Your task to perform on an android device: toggle pop-ups in chrome Image 0: 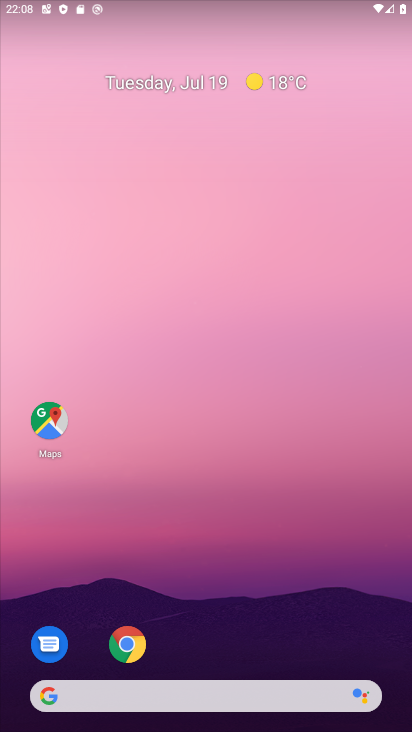
Step 0: drag from (243, 702) to (184, 206)
Your task to perform on an android device: toggle pop-ups in chrome Image 1: 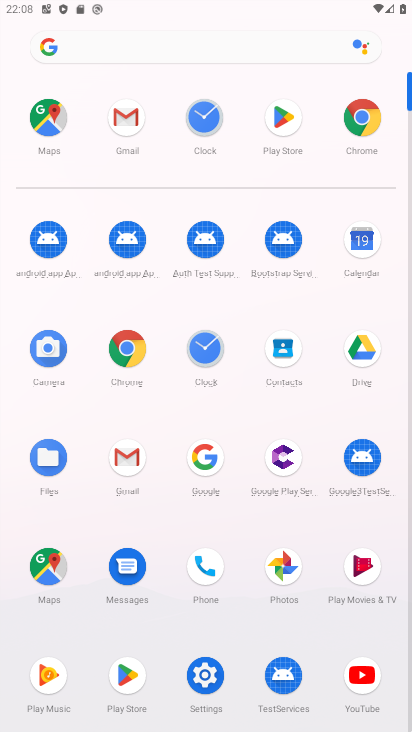
Step 1: click (131, 347)
Your task to perform on an android device: toggle pop-ups in chrome Image 2: 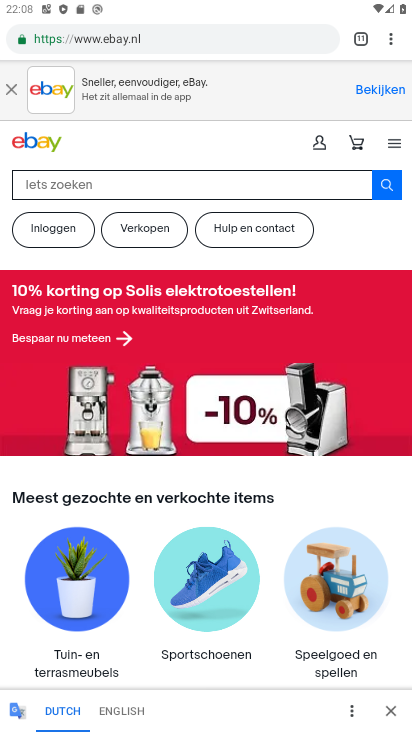
Step 2: click (389, 42)
Your task to perform on an android device: toggle pop-ups in chrome Image 3: 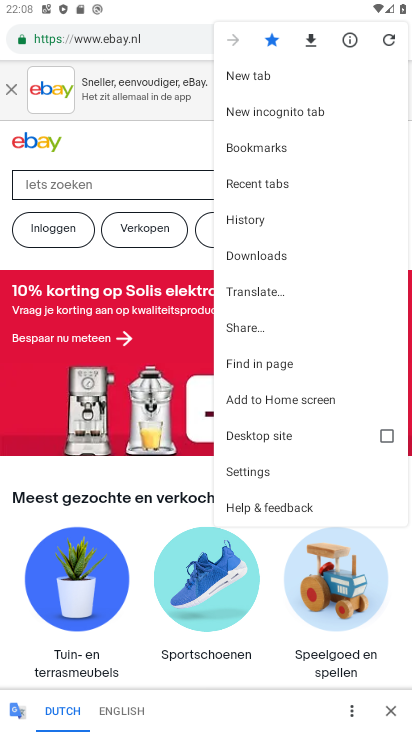
Step 3: click (241, 472)
Your task to perform on an android device: toggle pop-ups in chrome Image 4: 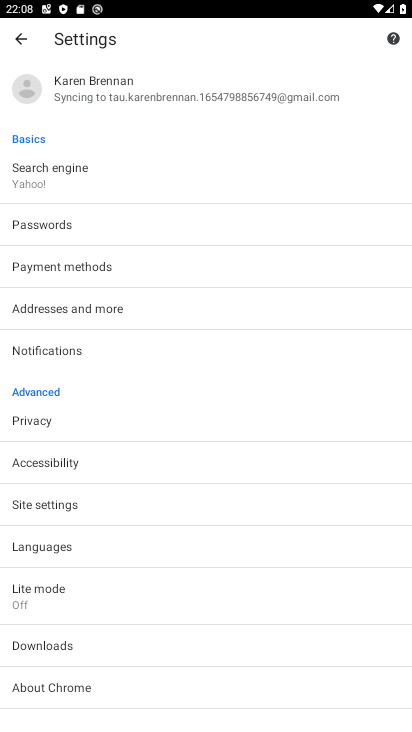
Step 4: click (52, 505)
Your task to perform on an android device: toggle pop-ups in chrome Image 5: 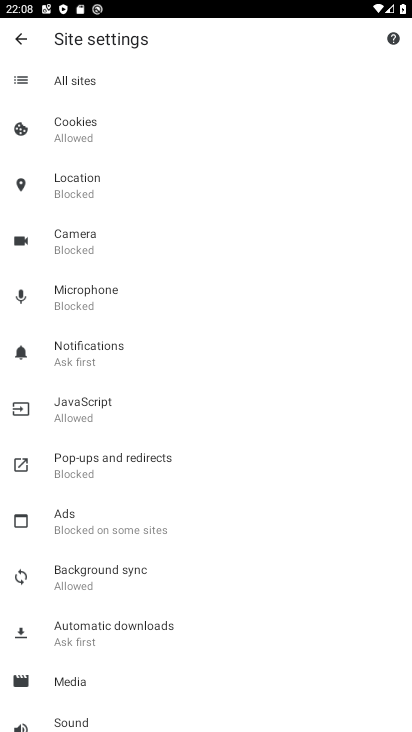
Step 5: click (82, 458)
Your task to perform on an android device: toggle pop-ups in chrome Image 6: 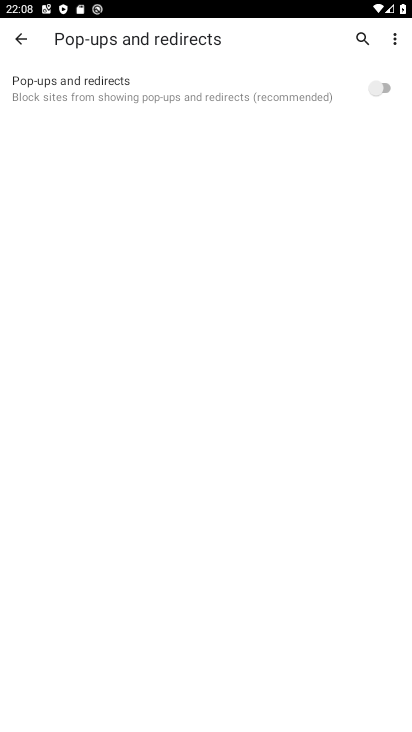
Step 6: click (381, 91)
Your task to perform on an android device: toggle pop-ups in chrome Image 7: 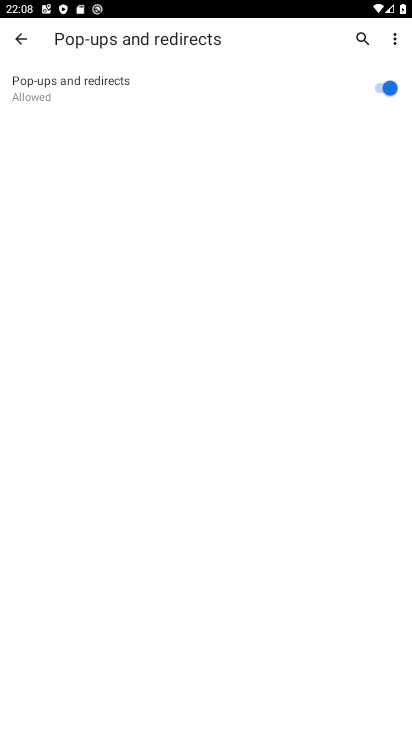
Step 7: task complete